Your task to perform on an android device: move a message to another label in the gmail app Image 0: 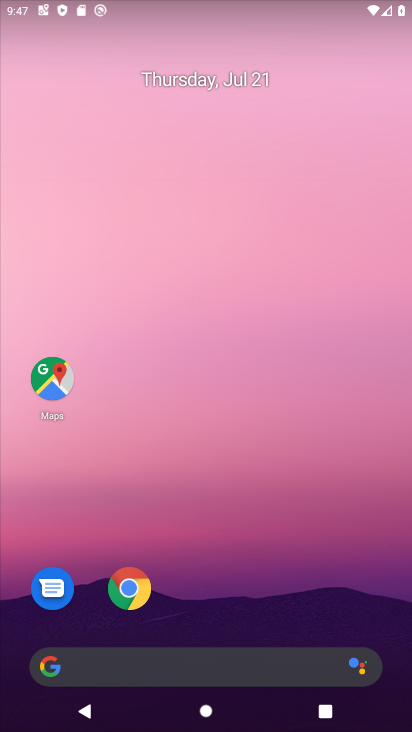
Step 0: drag from (404, 688) to (302, 61)
Your task to perform on an android device: move a message to another label in the gmail app Image 1: 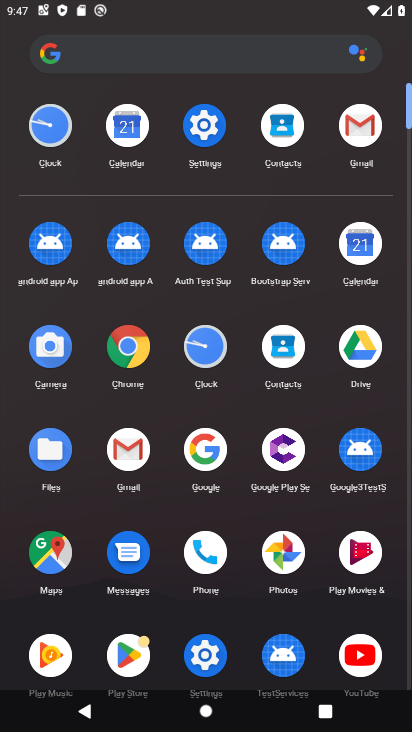
Step 1: click (364, 122)
Your task to perform on an android device: move a message to another label in the gmail app Image 2: 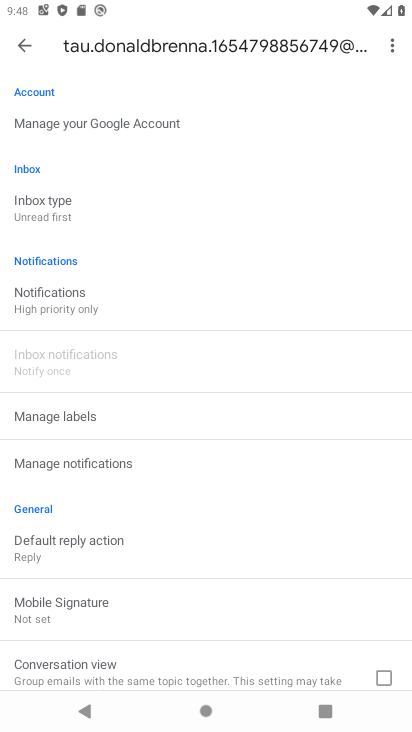
Step 2: click (16, 37)
Your task to perform on an android device: move a message to another label in the gmail app Image 3: 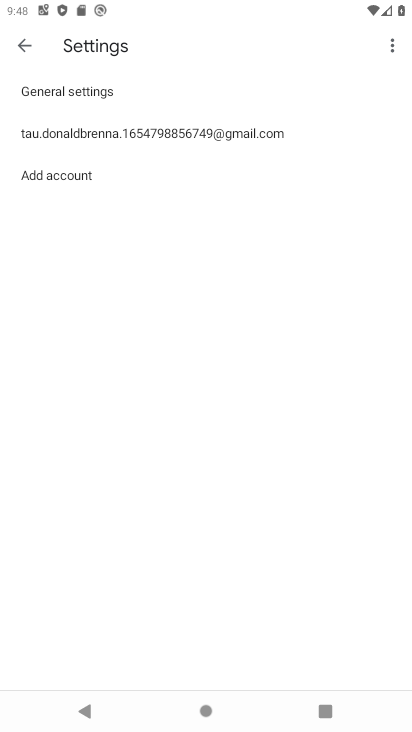
Step 3: click (16, 42)
Your task to perform on an android device: move a message to another label in the gmail app Image 4: 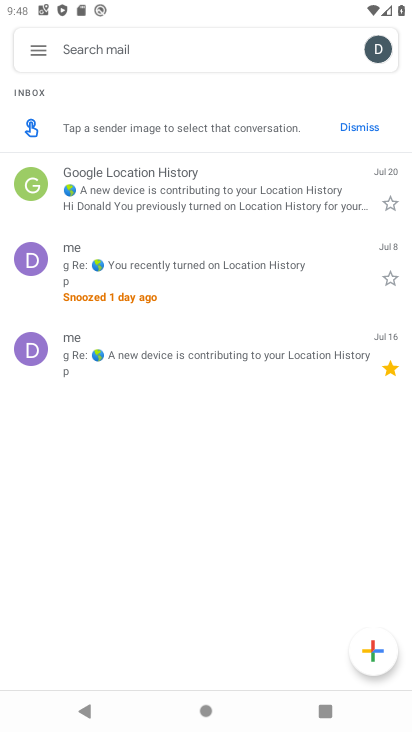
Step 4: click (388, 200)
Your task to perform on an android device: move a message to another label in the gmail app Image 5: 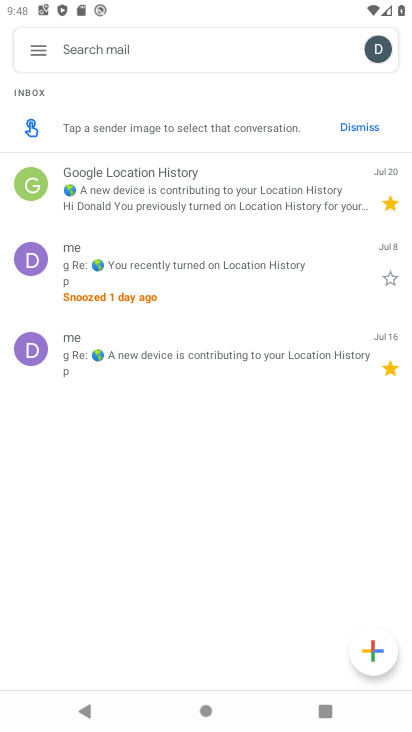
Step 5: task complete